Your task to perform on an android device: snooze an email in the gmail app Image 0: 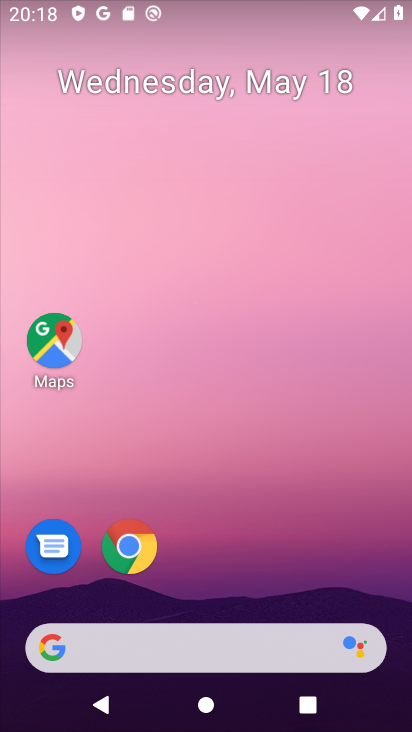
Step 0: drag from (253, 603) to (18, 57)
Your task to perform on an android device: snooze an email in the gmail app Image 1: 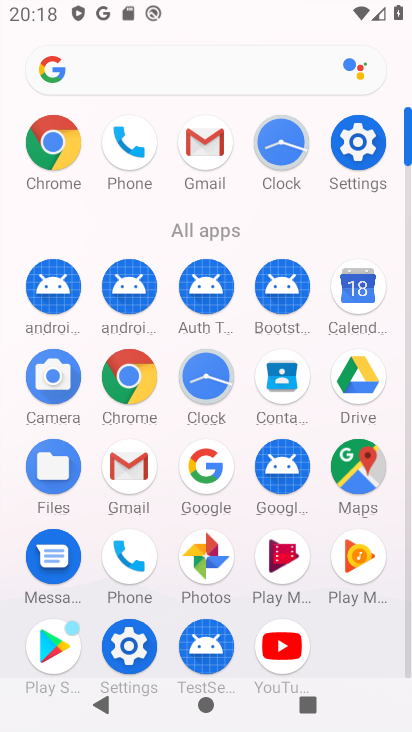
Step 1: click (209, 151)
Your task to perform on an android device: snooze an email in the gmail app Image 2: 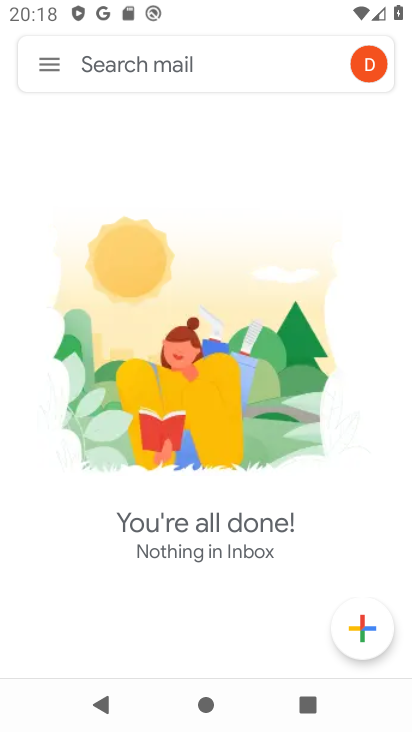
Step 2: click (58, 66)
Your task to perform on an android device: snooze an email in the gmail app Image 3: 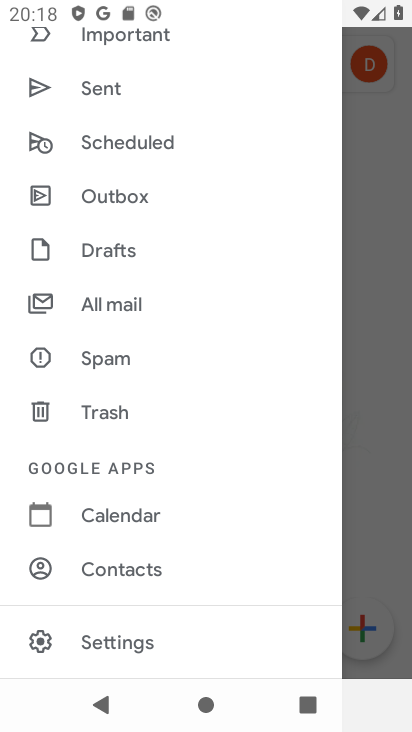
Step 3: click (154, 309)
Your task to perform on an android device: snooze an email in the gmail app Image 4: 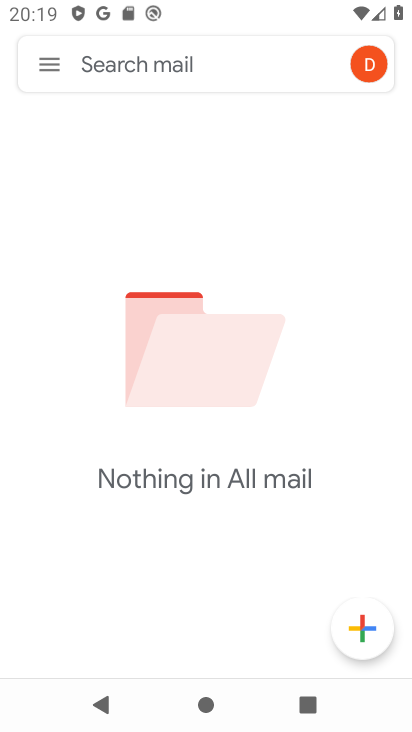
Step 4: task complete